Your task to perform on an android device: stop showing notifications on the lock screen Image 0: 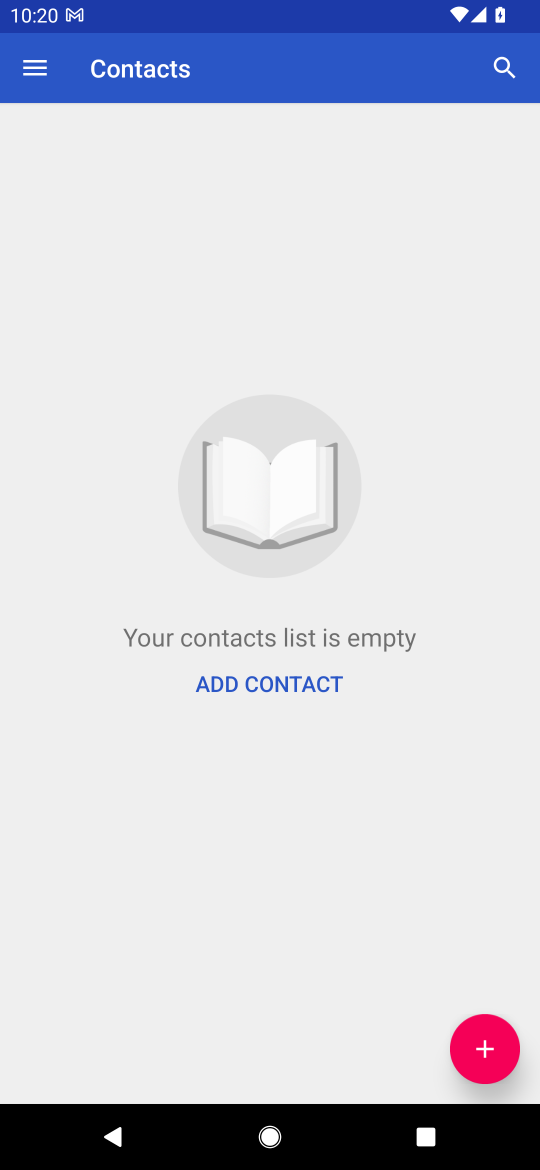
Step 0: press home button
Your task to perform on an android device: stop showing notifications on the lock screen Image 1: 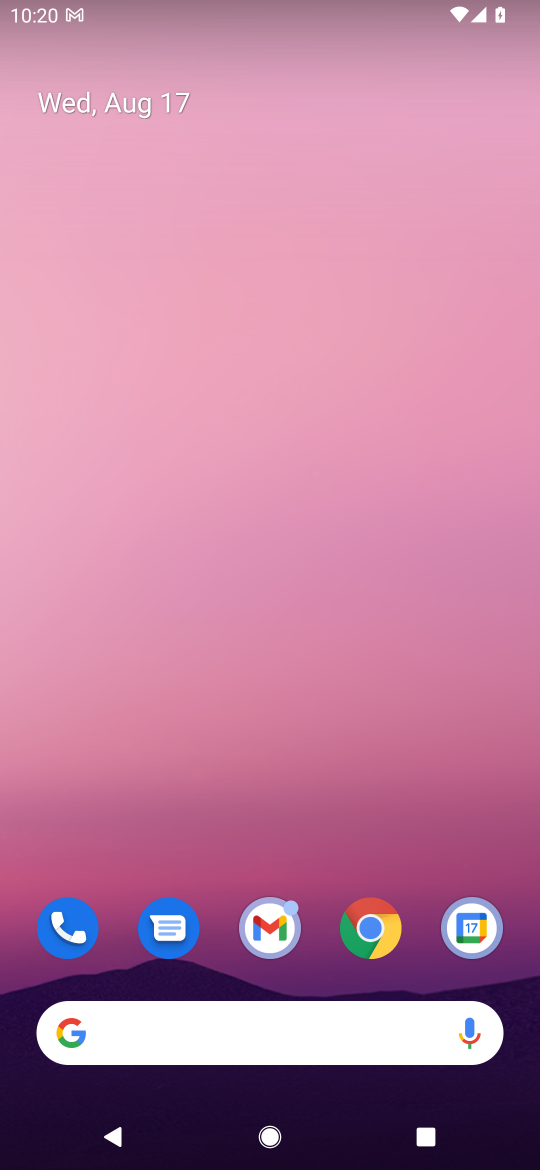
Step 1: drag from (412, 898) to (299, 282)
Your task to perform on an android device: stop showing notifications on the lock screen Image 2: 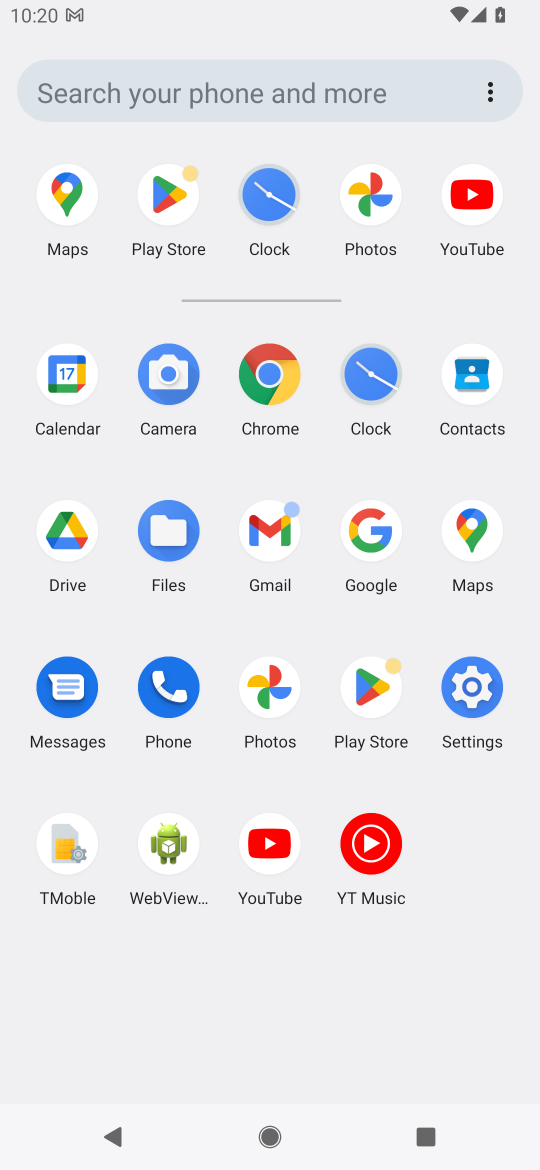
Step 2: click (487, 693)
Your task to perform on an android device: stop showing notifications on the lock screen Image 3: 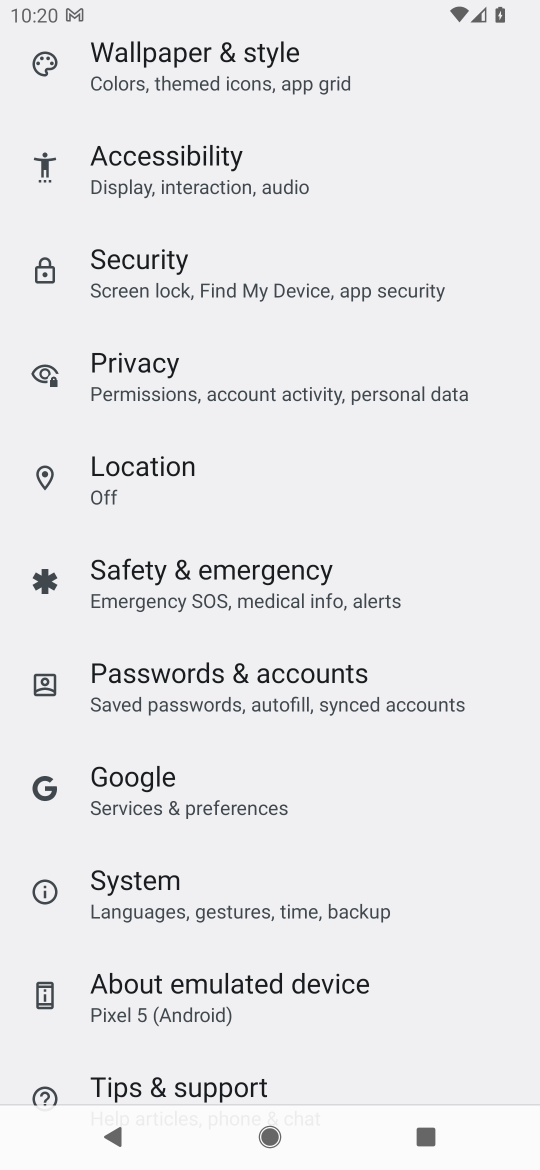
Step 3: drag from (179, 368) to (163, 1077)
Your task to perform on an android device: stop showing notifications on the lock screen Image 4: 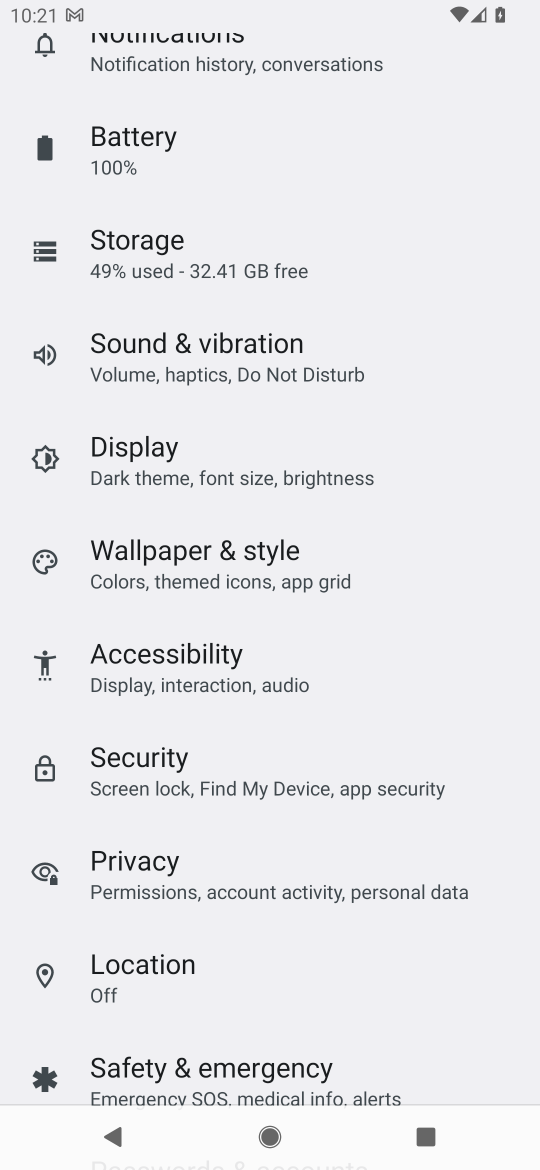
Step 4: click (166, 66)
Your task to perform on an android device: stop showing notifications on the lock screen Image 5: 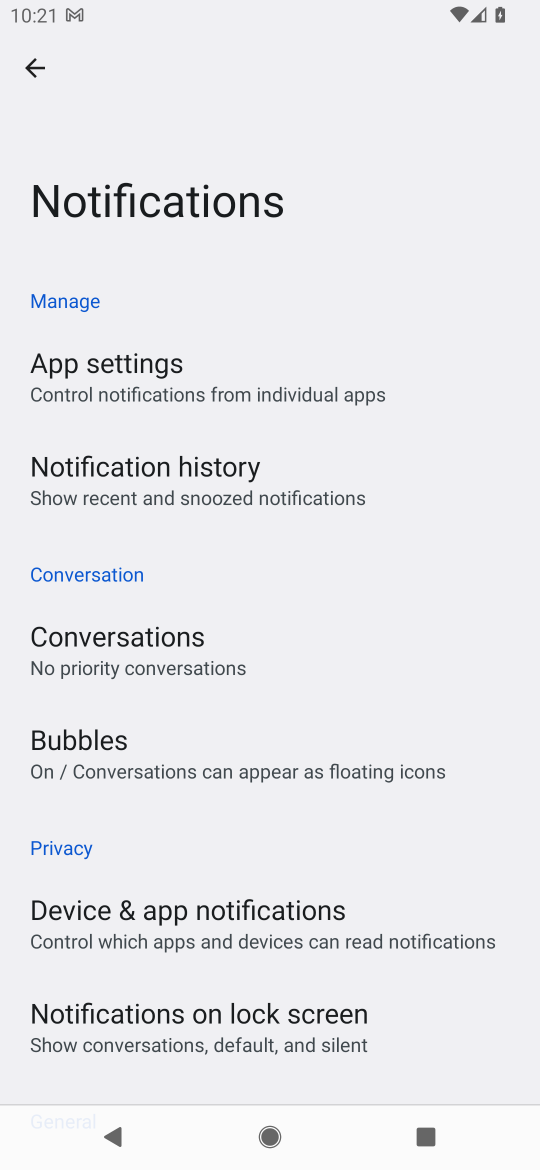
Step 5: drag from (278, 878) to (191, 494)
Your task to perform on an android device: stop showing notifications on the lock screen Image 6: 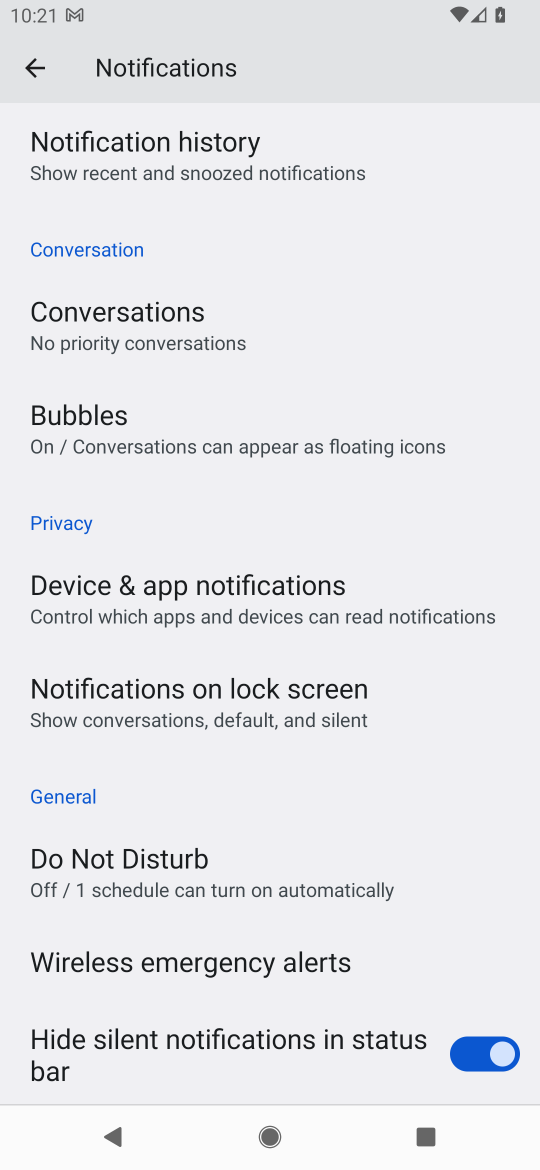
Step 6: click (268, 717)
Your task to perform on an android device: stop showing notifications on the lock screen Image 7: 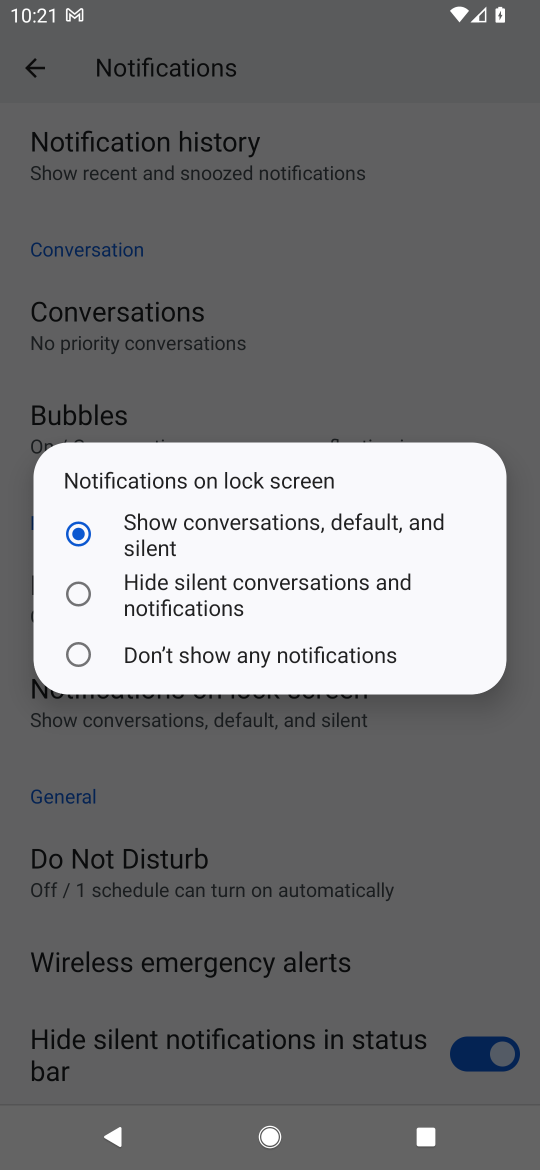
Step 7: click (172, 654)
Your task to perform on an android device: stop showing notifications on the lock screen Image 8: 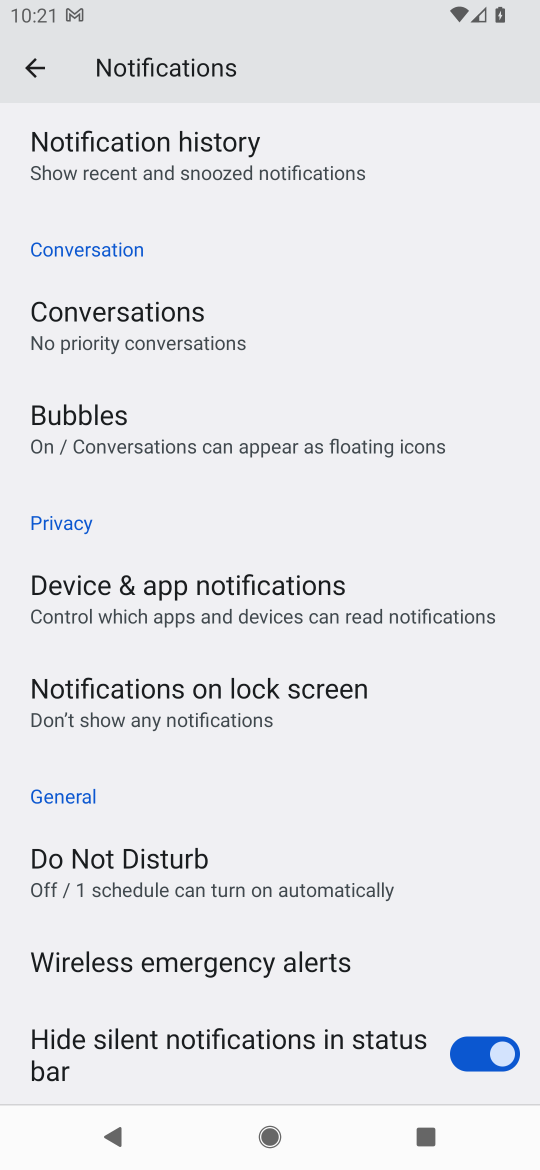
Step 8: task complete